Your task to perform on an android device: Open accessibility settings Image 0: 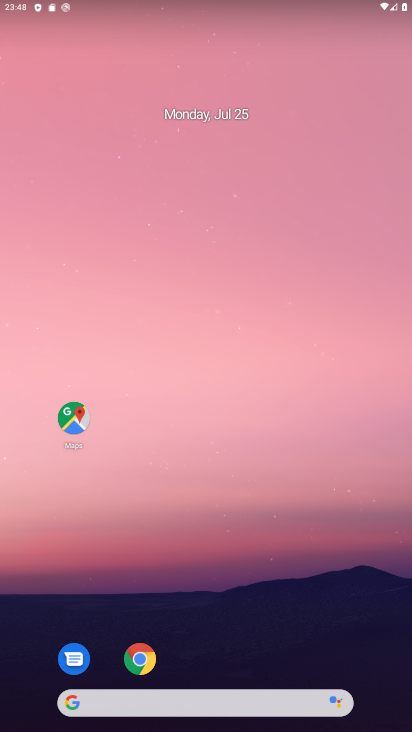
Step 0: drag from (252, 643) to (130, 0)
Your task to perform on an android device: Open accessibility settings Image 1: 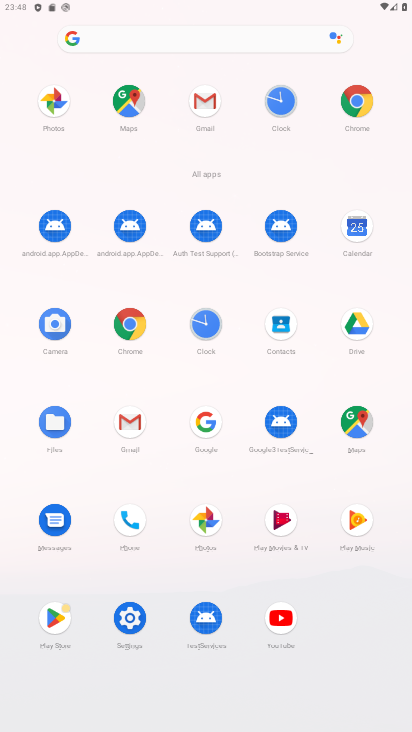
Step 1: click (126, 613)
Your task to perform on an android device: Open accessibility settings Image 2: 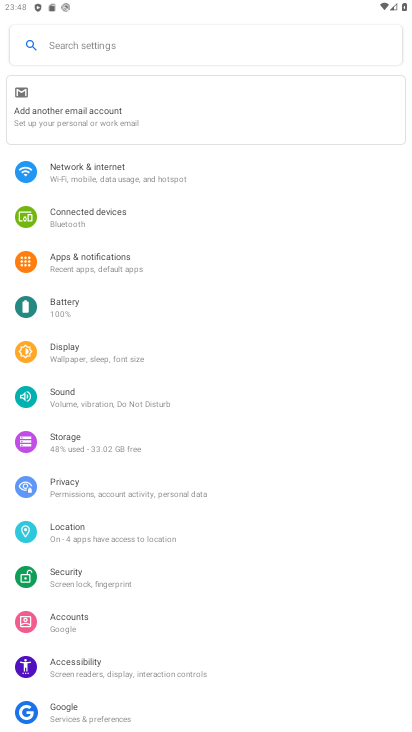
Step 2: drag from (164, 616) to (241, 102)
Your task to perform on an android device: Open accessibility settings Image 3: 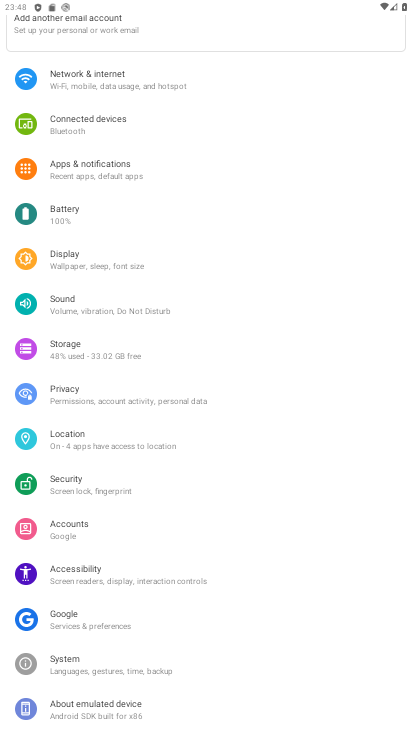
Step 3: click (76, 591)
Your task to perform on an android device: Open accessibility settings Image 4: 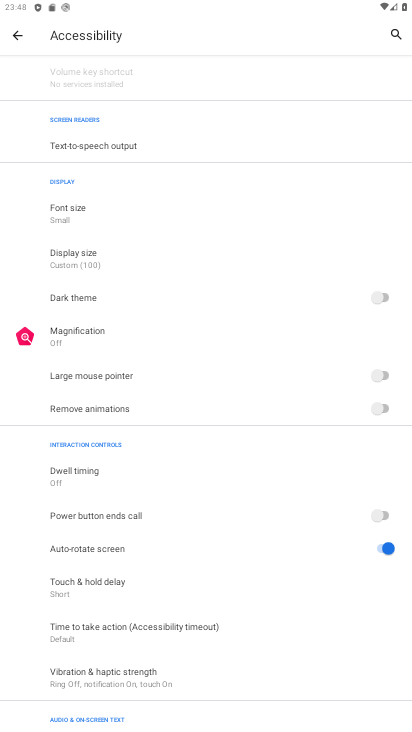
Step 4: task complete